Your task to perform on an android device: open app "Pluto TV - Live TV and Movies" Image 0: 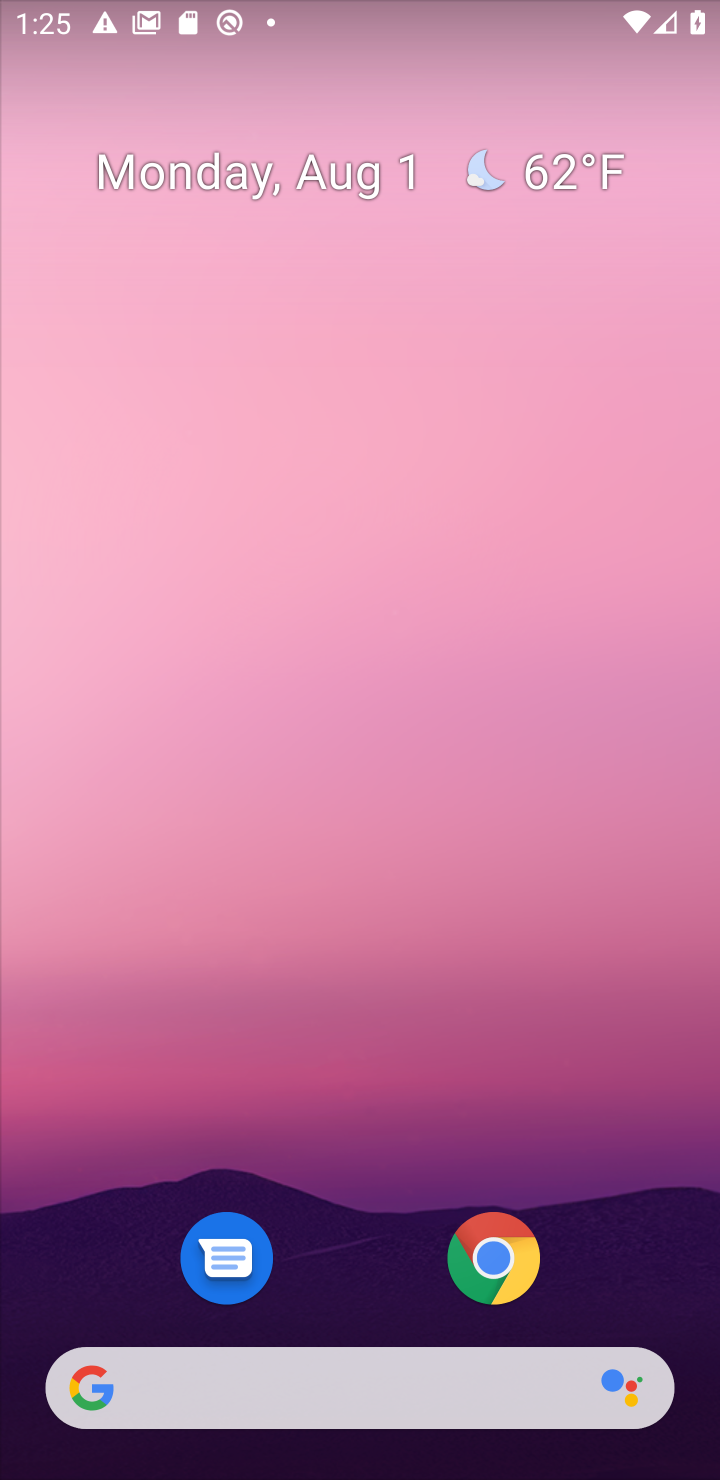
Step 0: drag from (129, 1185) to (378, 115)
Your task to perform on an android device: open app "Pluto TV - Live TV and Movies" Image 1: 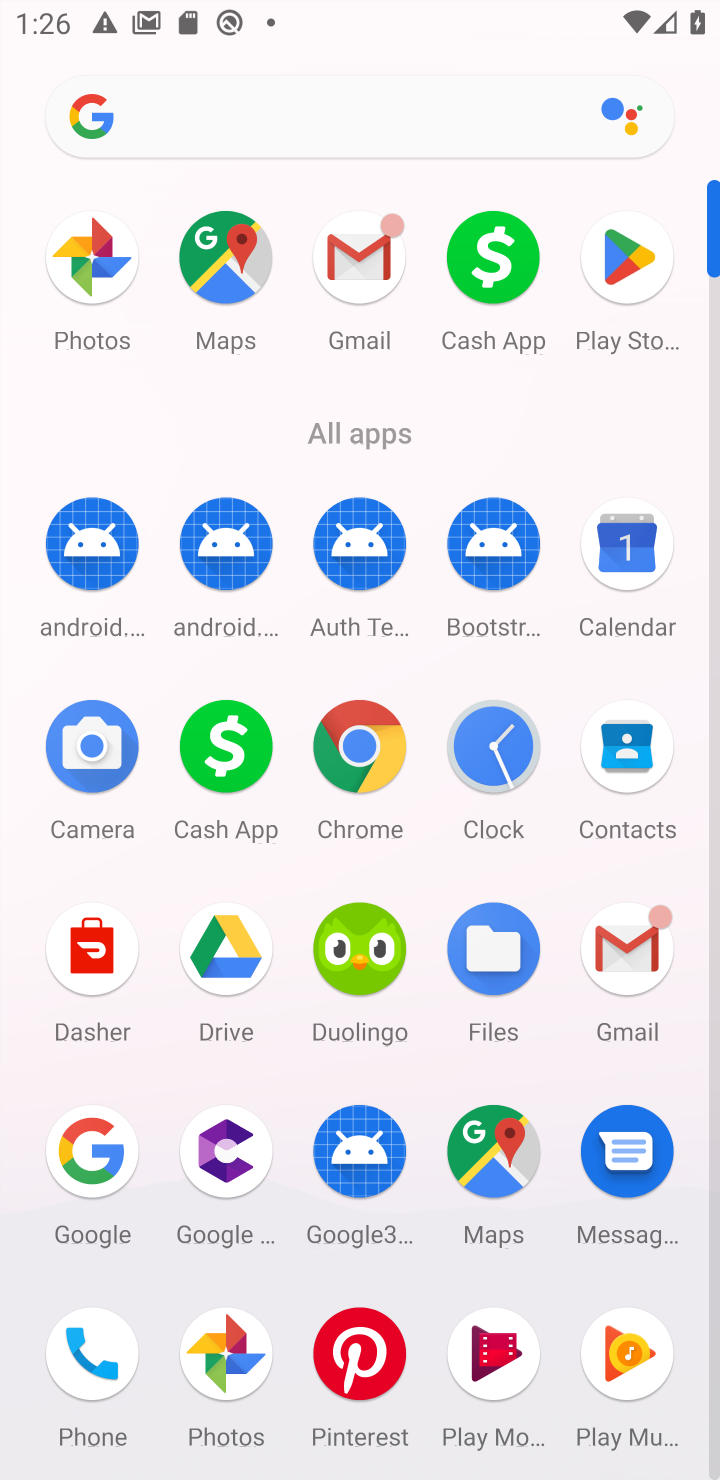
Step 1: click (627, 259)
Your task to perform on an android device: open app "Pluto TV - Live TV and Movies" Image 2: 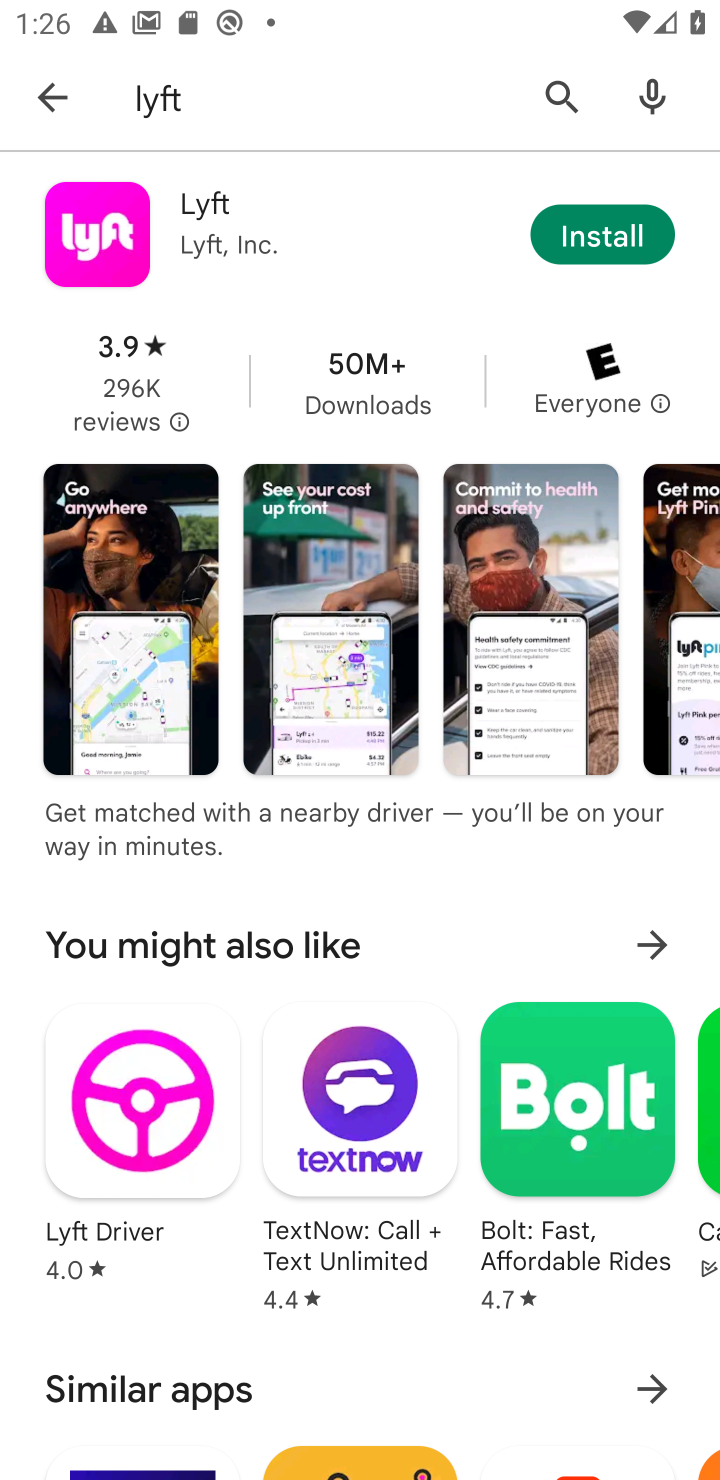
Step 2: click (555, 96)
Your task to perform on an android device: open app "Pluto TV - Live TV and Movies" Image 3: 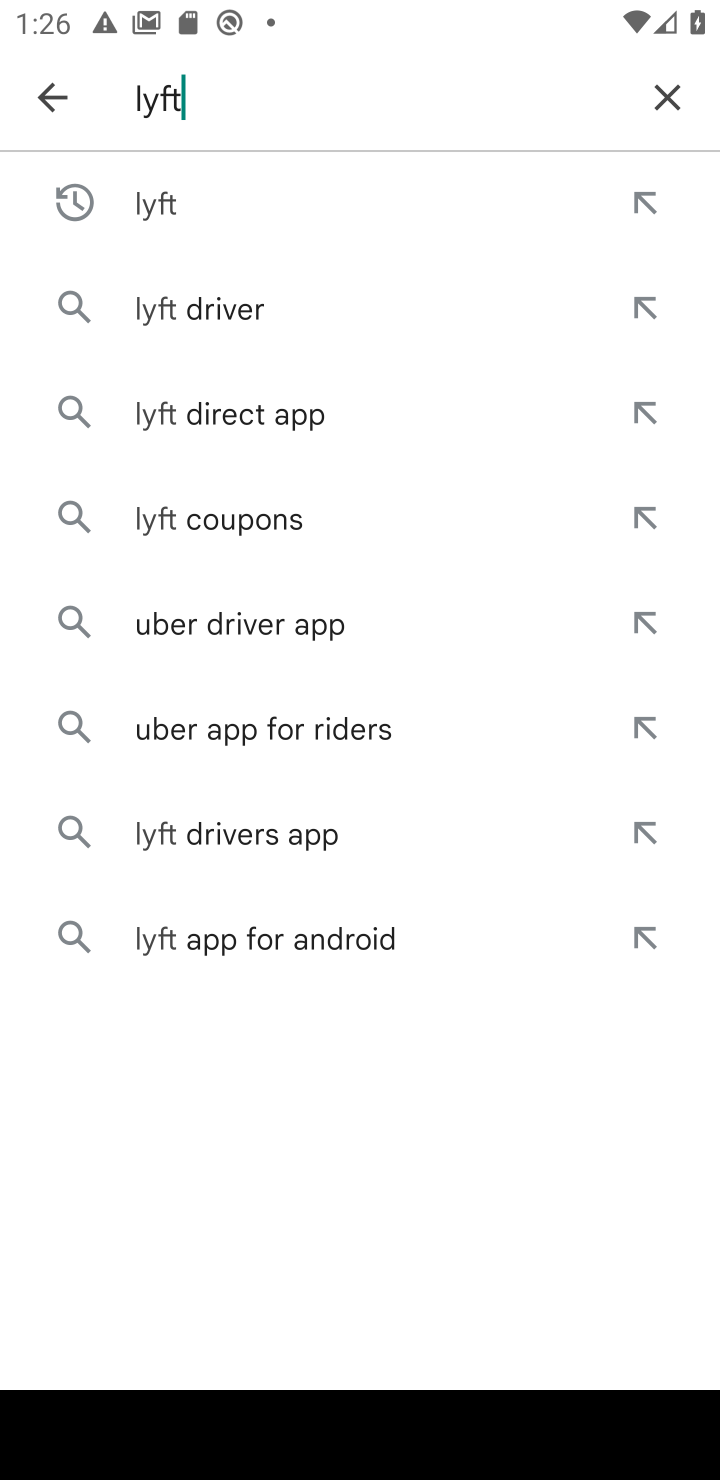
Step 3: click (666, 84)
Your task to perform on an android device: open app "Pluto TV - Live TV and Movies" Image 4: 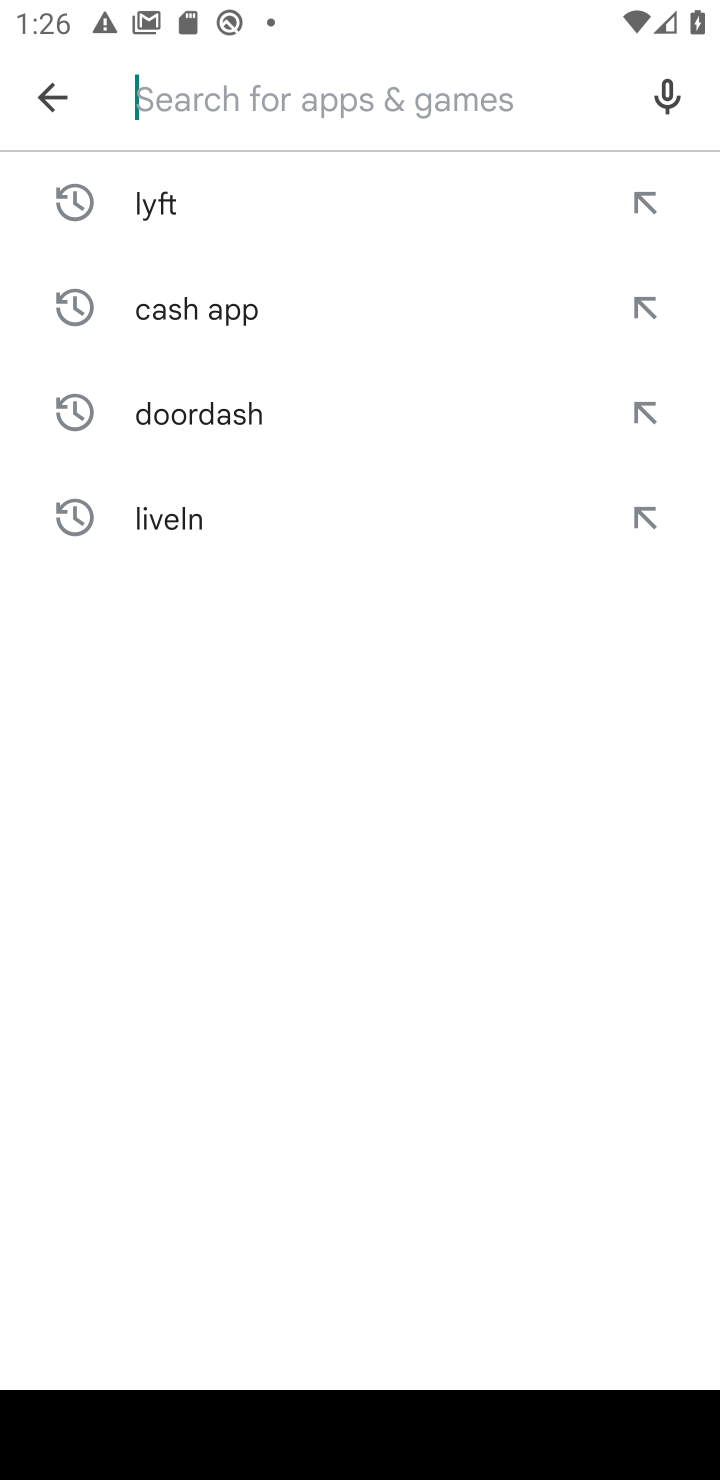
Step 4: click (274, 104)
Your task to perform on an android device: open app "Pluto TV - Live TV and Movies" Image 5: 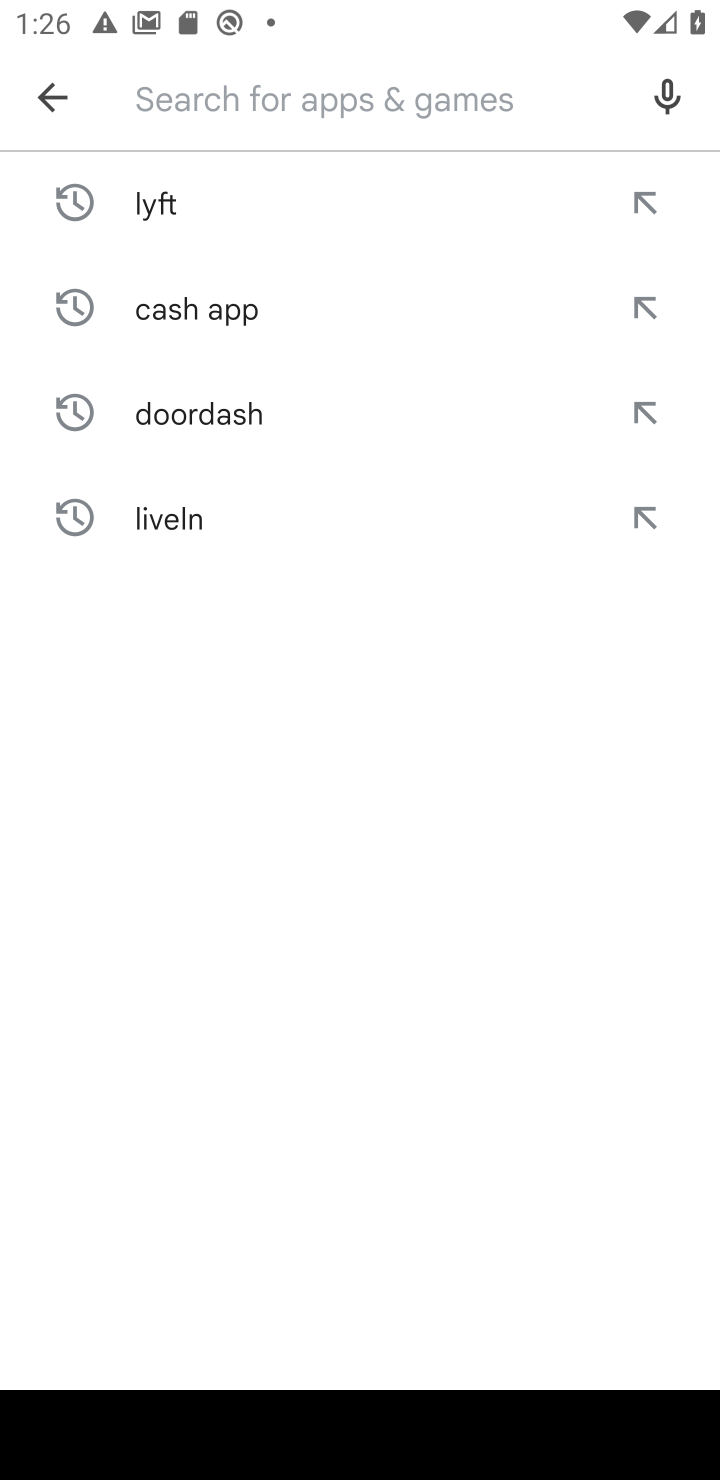
Step 5: type "pluto tv"
Your task to perform on an android device: open app "Pluto TV - Live TV and Movies" Image 6: 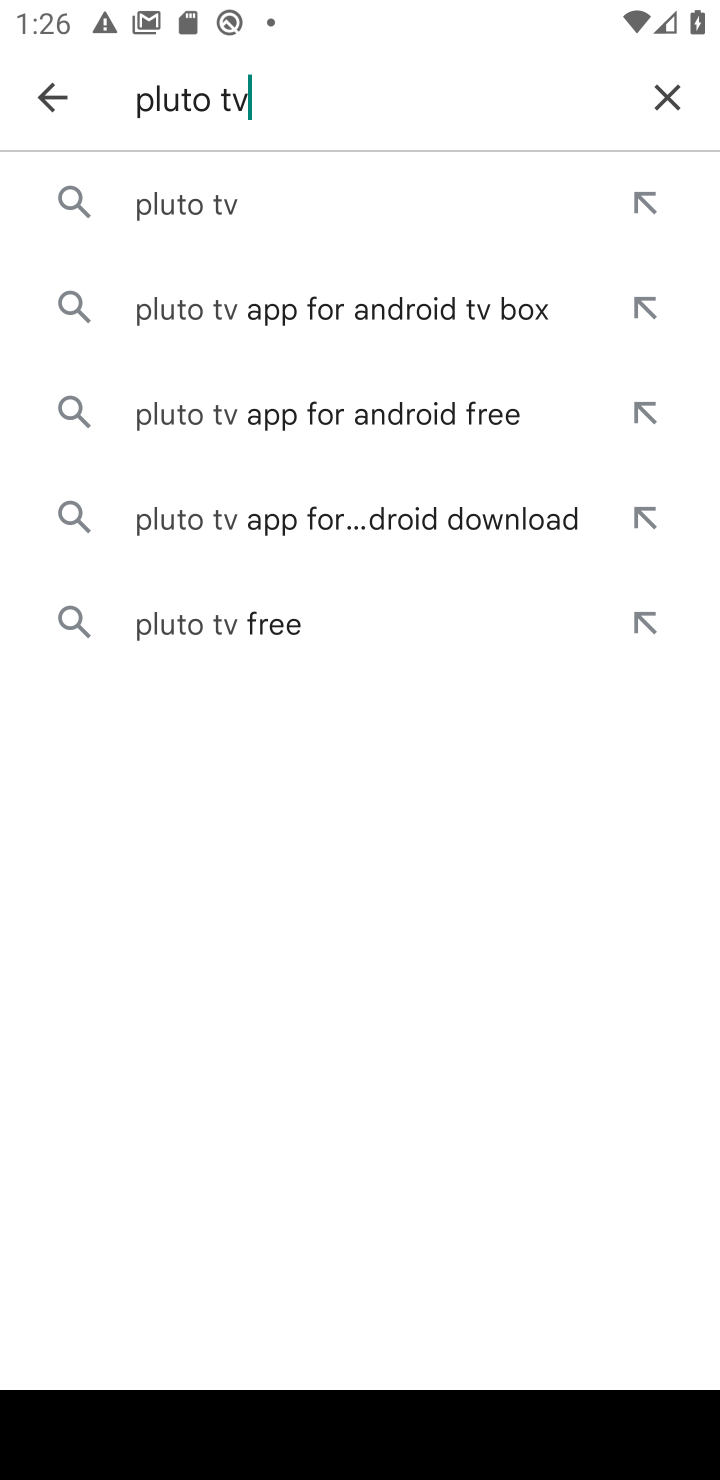
Step 6: click (253, 218)
Your task to perform on an android device: open app "Pluto TV - Live TV and Movies" Image 7: 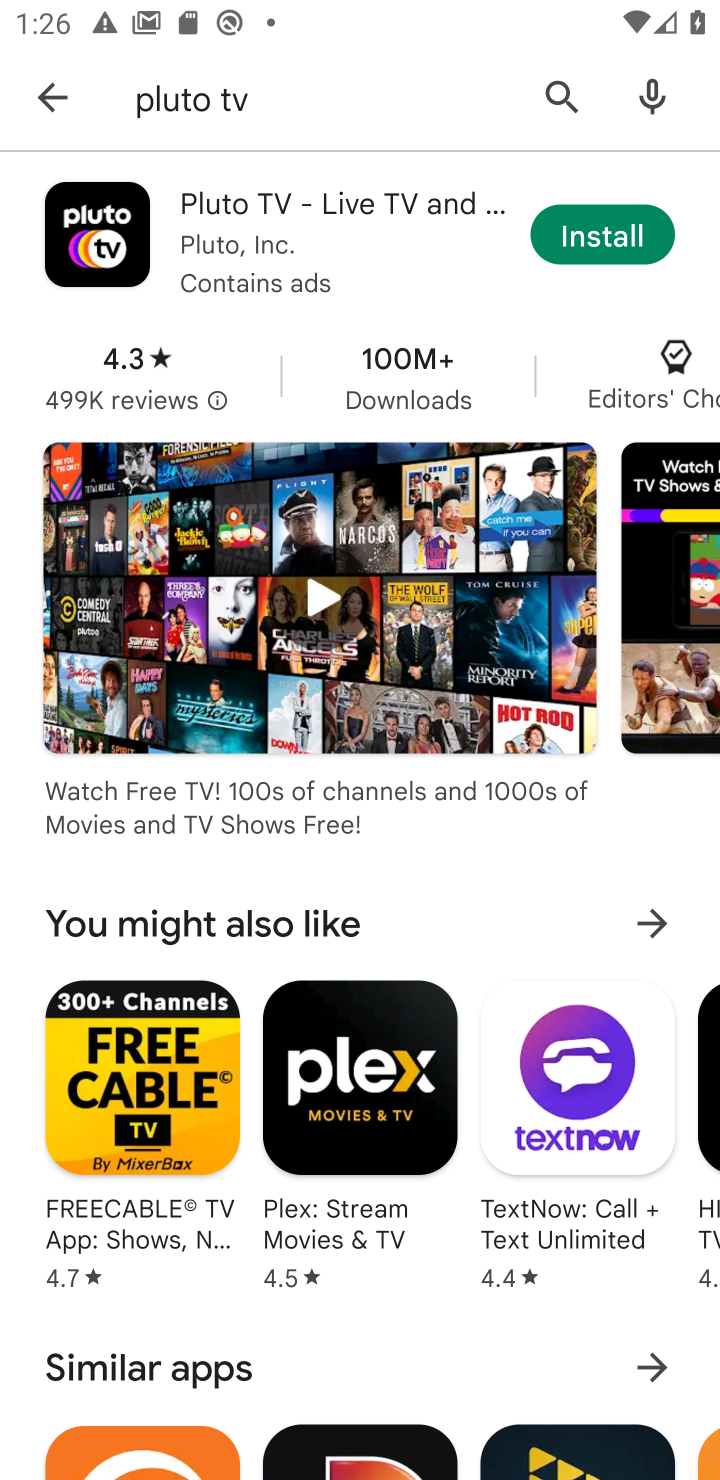
Step 7: task complete